Your task to perform on an android device: toggle notification dots Image 0: 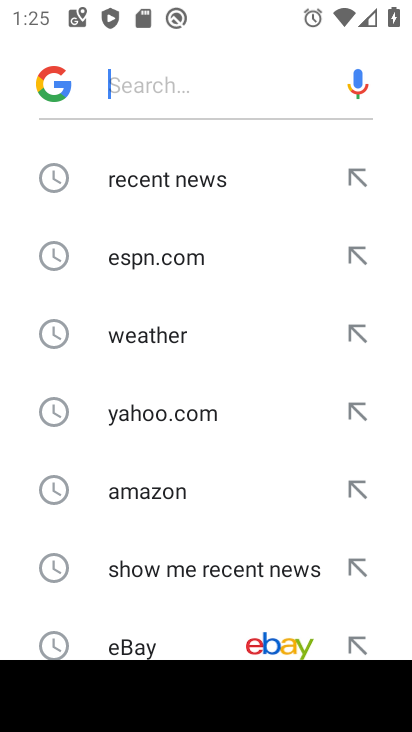
Step 0: press home button
Your task to perform on an android device: toggle notification dots Image 1: 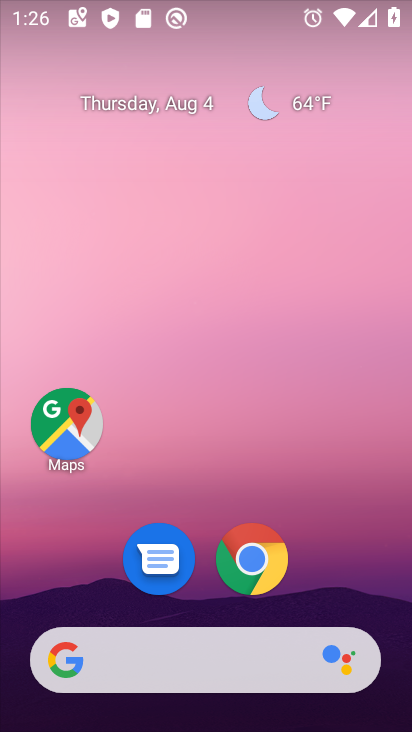
Step 1: drag from (219, 685) to (210, 138)
Your task to perform on an android device: toggle notification dots Image 2: 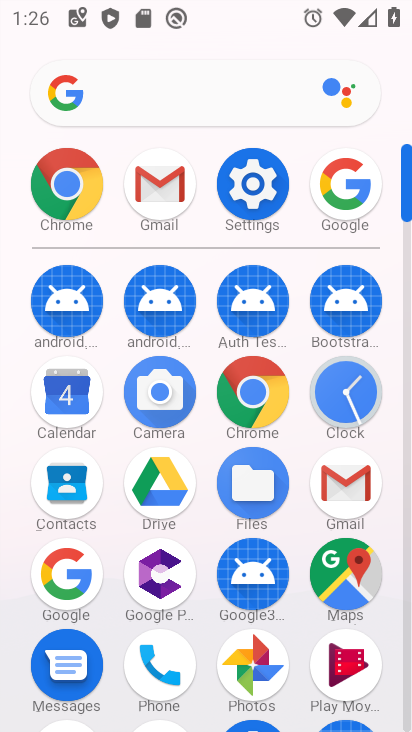
Step 2: click (249, 187)
Your task to perform on an android device: toggle notification dots Image 3: 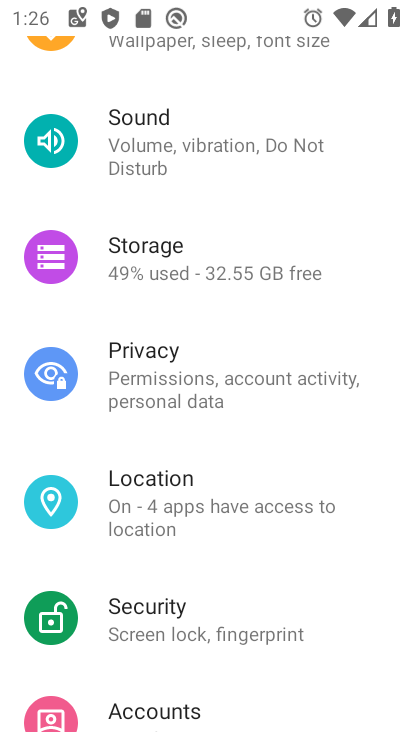
Step 3: drag from (229, 228) to (194, 371)
Your task to perform on an android device: toggle notification dots Image 4: 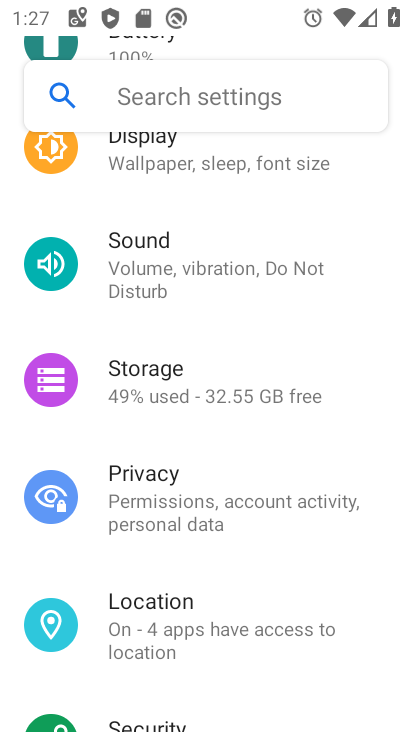
Step 4: drag from (247, 222) to (224, 410)
Your task to perform on an android device: toggle notification dots Image 5: 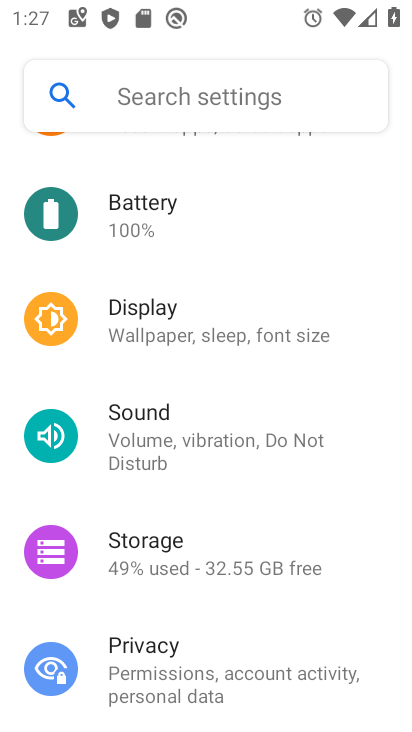
Step 5: drag from (223, 220) to (213, 416)
Your task to perform on an android device: toggle notification dots Image 6: 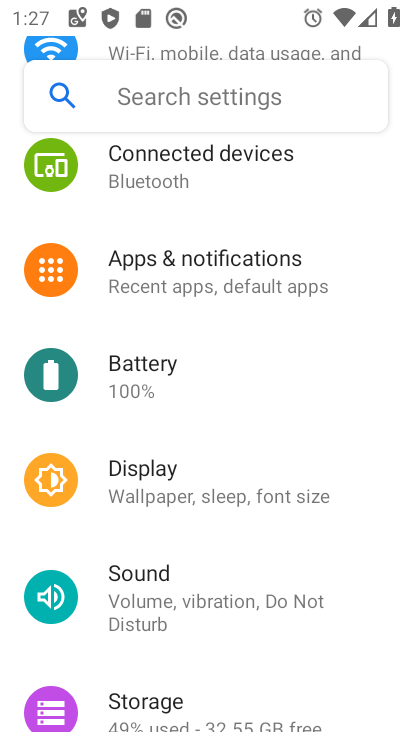
Step 6: click (192, 275)
Your task to perform on an android device: toggle notification dots Image 7: 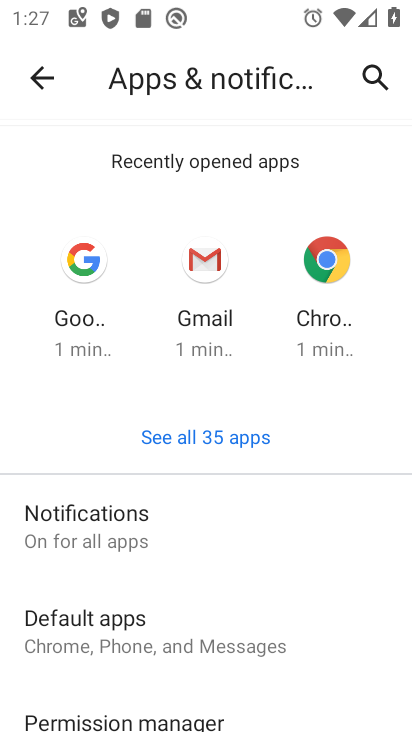
Step 7: click (113, 527)
Your task to perform on an android device: toggle notification dots Image 8: 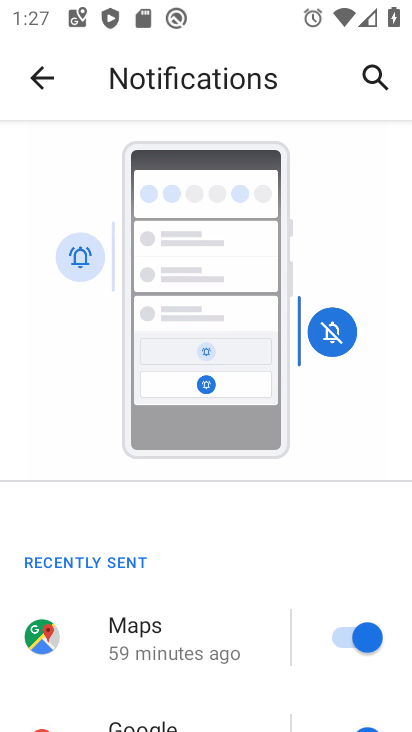
Step 8: drag from (186, 608) to (214, 448)
Your task to perform on an android device: toggle notification dots Image 9: 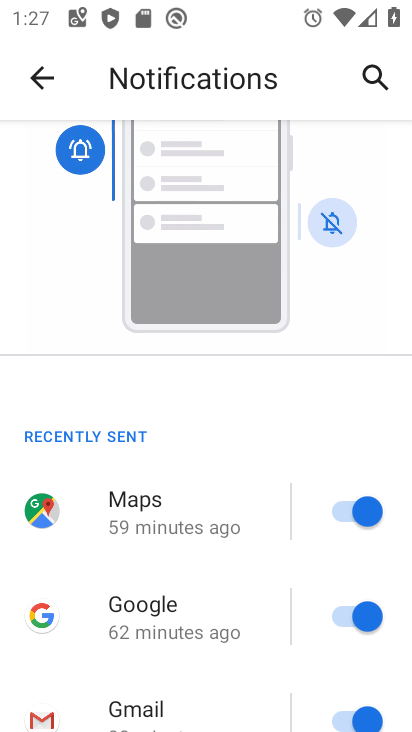
Step 9: drag from (180, 662) to (198, 530)
Your task to perform on an android device: toggle notification dots Image 10: 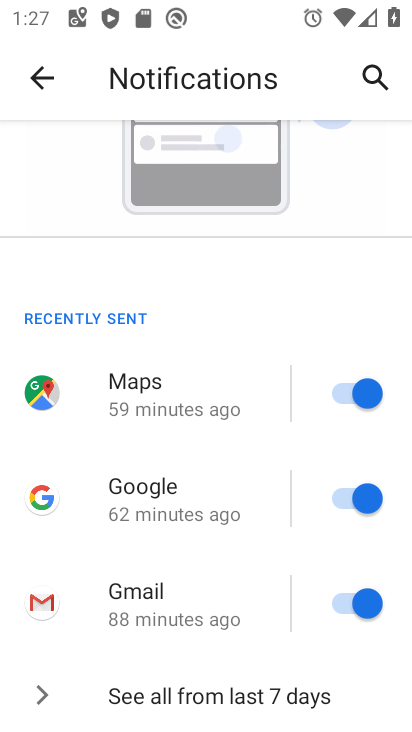
Step 10: drag from (161, 641) to (243, 387)
Your task to perform on an android device: toggle notification dots Image 11: 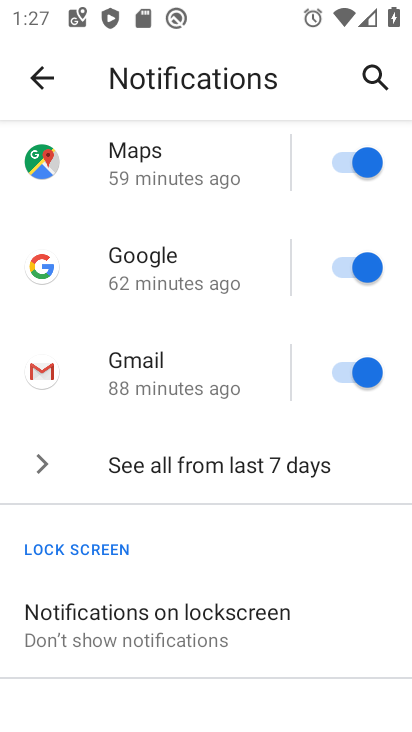
Step 11: drag from (163, 577) to (254, 421)
Your task to perform on an android device: toggle notification dots Image 12: 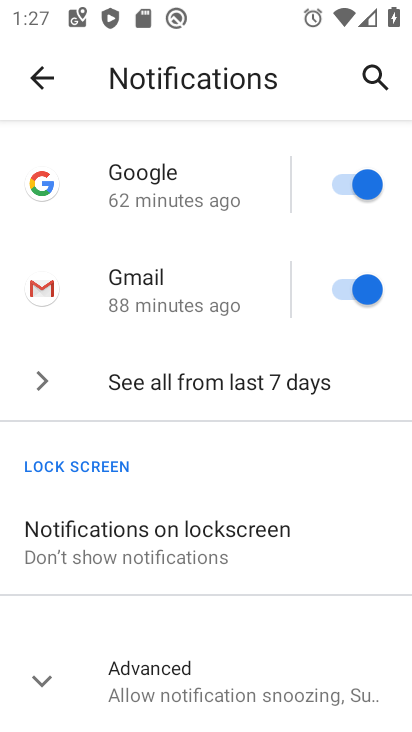
Step 12: click (207, 691)
Your task to perform on an android device: toggle notification dots Image 13: 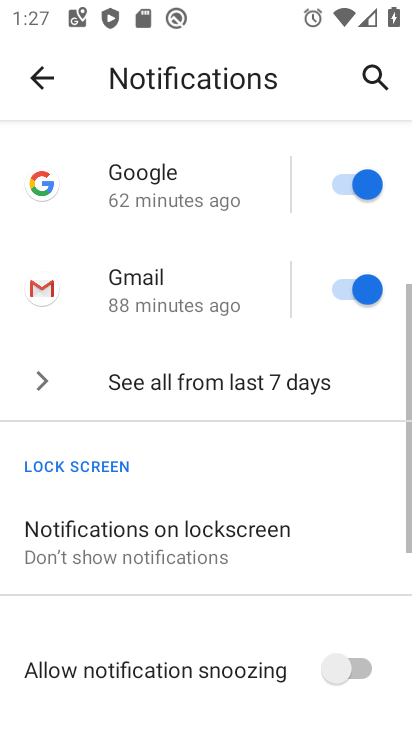
Step 13: drag from (196, 646) to (213, 470)
Your task to perform on an android device: toggle notification dots Image 14: 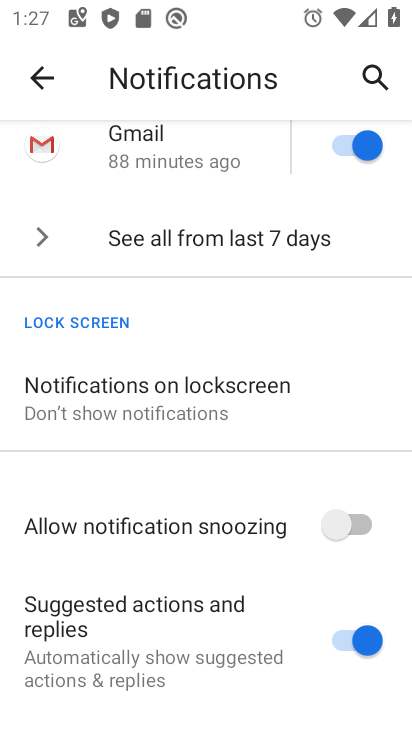
Step 14: drag from (169, 566) to (180, 444)
Your task to perform on an android device: toggle notification dots Image 15: 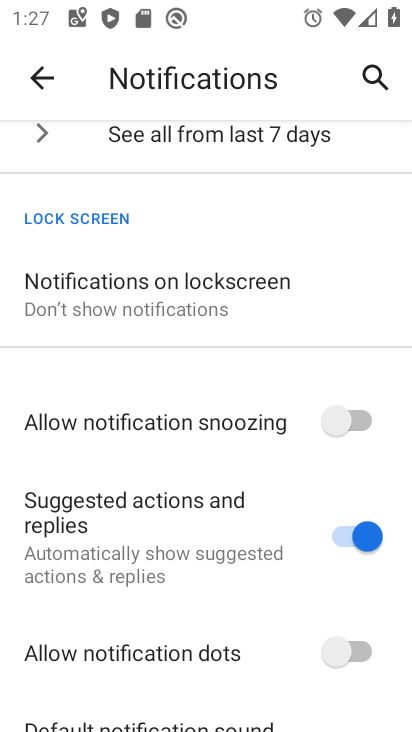
Step 15: drag from (147, 603) to (206, 495)
Your task to perform on an android device: toggle notification dots Image 16: 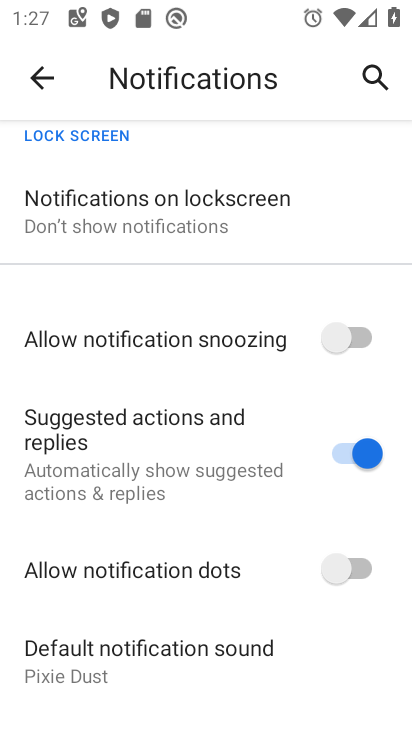
Step 16: click (335, 574)
Your task to perform on an android device: toggle notification dots Image 17: 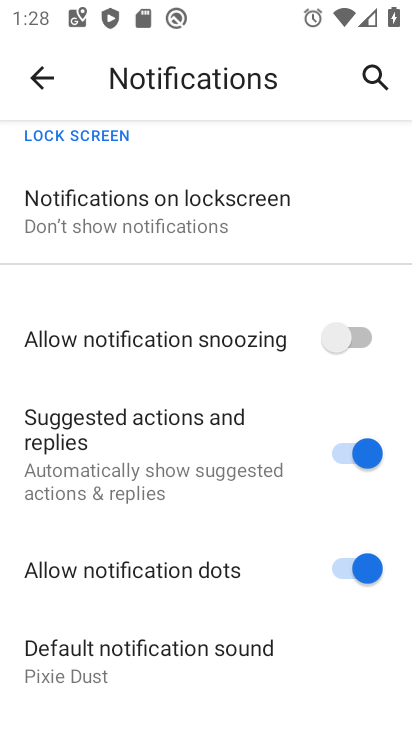
Step 17: task complete